Your task to perform on an android device: create a new album in the google photos Image 0: 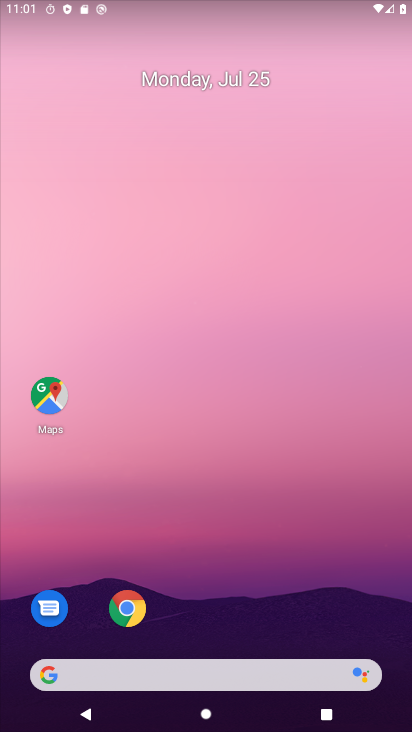
Step 0: drag from (277, 584) to (220, 0)
Your task to perform on an android device: create a new album in the google photos Image 1: 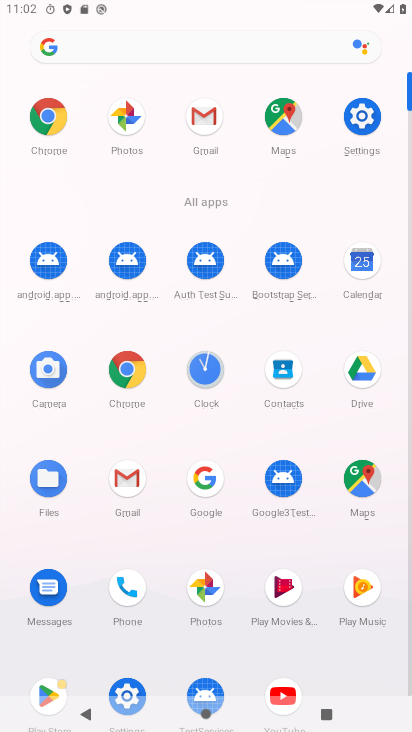
Step 1: click (214, 590)
Your task to perform on an android device: create a new album in the google photos Image 2: 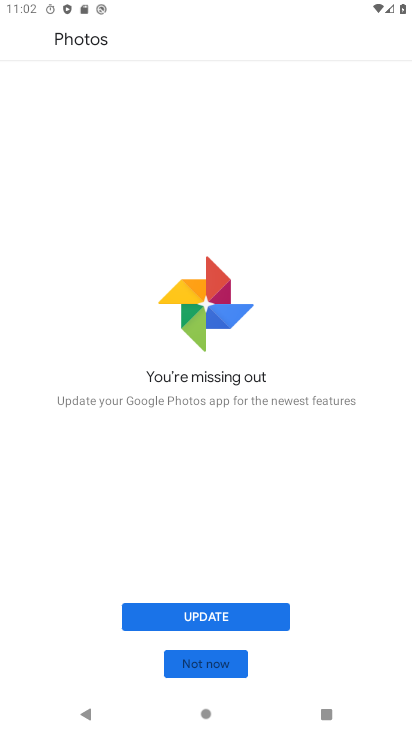
Step 2: click (196, 623)
Your task to perform on an android device: create a new album in the google photos Image 3: 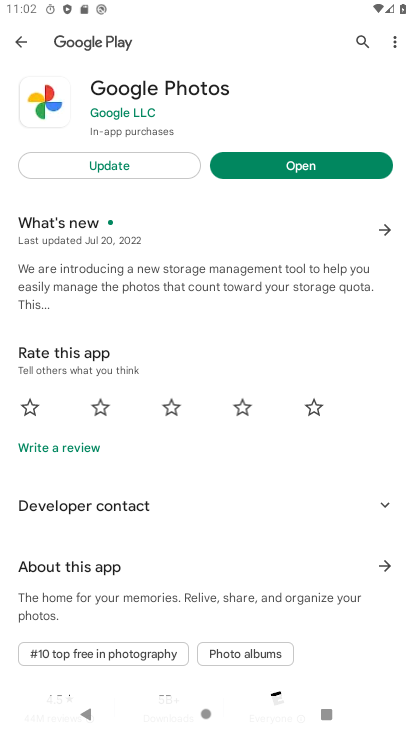
Step 3: click (144, 159)
Your task to perform on an android device: create a new album in the google photos Image 4: 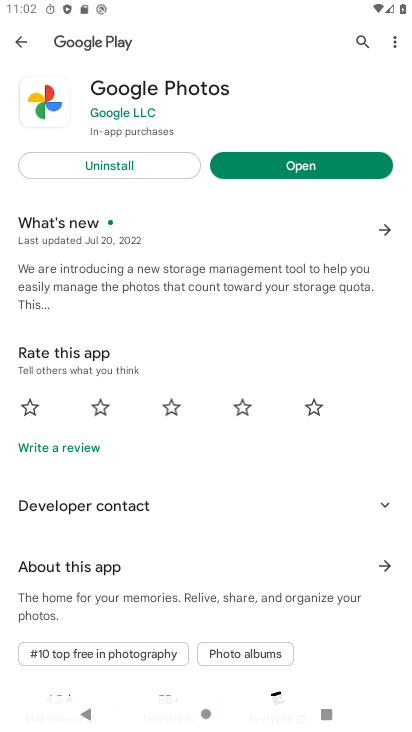
Step 4: click (307, 160)
Your task to perform on an android device: create a new album in the google photos Image 5: 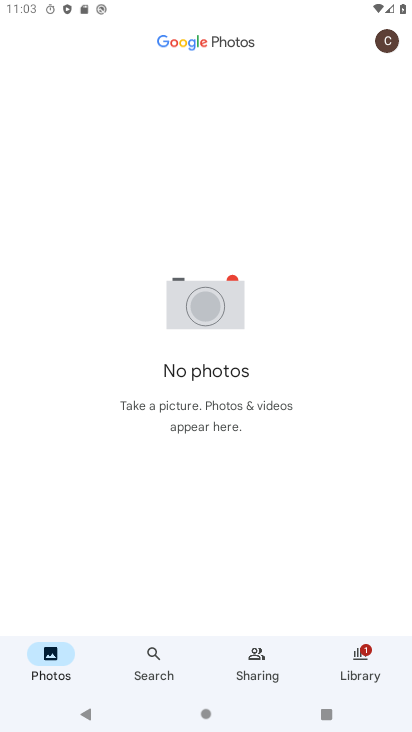
Step 5: task complete